Your task to perform on an android device: Open the Play Movies app and select the watchlist tab. Image 0: 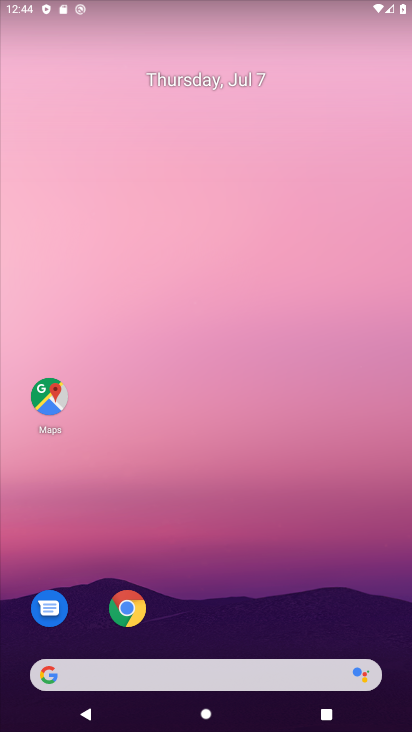
Step 0: drag from (228, 616) to (194, 132)
Your task to perform on an android device: Open the Play Movies app and select the watchlist tab. Image 1: 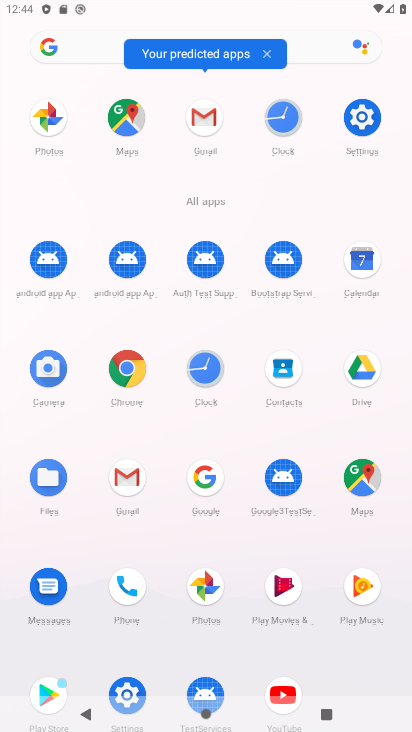
Step 1: drag from (298, 484) to (279, 240)
Your task to perform on an android device: Open the Play Movies app and select the watchlist tab. Image 2: 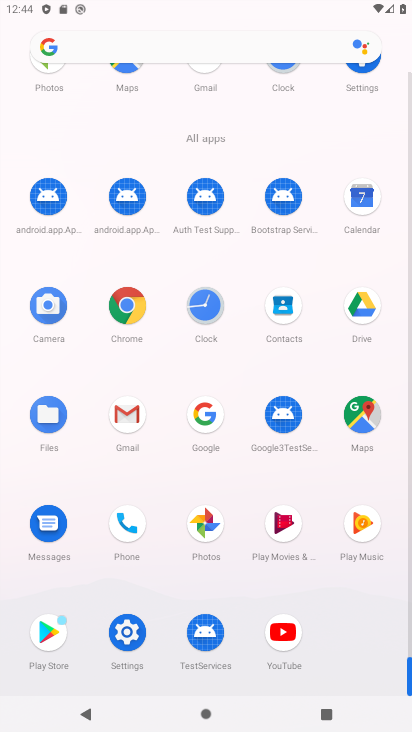
Step 2: click (294, 530)
Your task to perform on an android device: Open the Play Movies app and select the watchlist tab. Image 3: 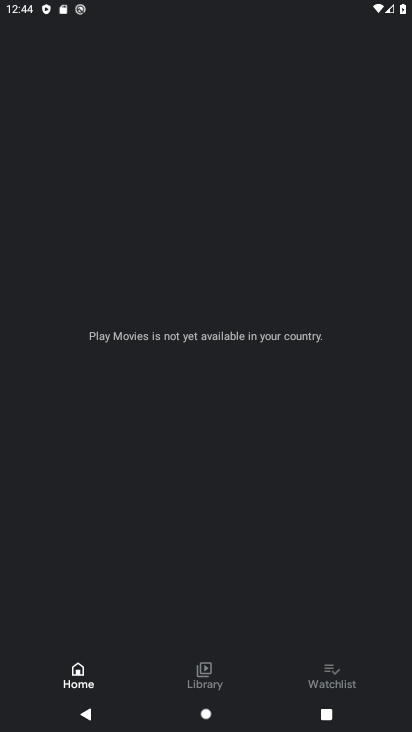
Step 3: click (336, 677)
Your task to perform on an android device: Open the Play Movies app and select the watchlist tab. Image 4: 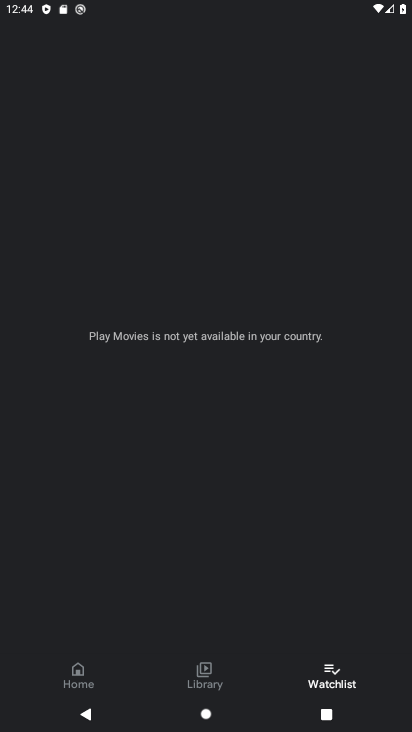
Step 4: task complete